Your task to perform on an android device: clear all cookies in the chrome app Image 0: 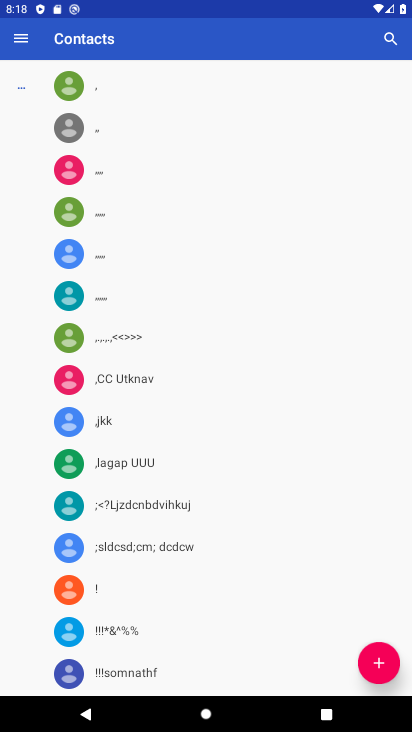
Step 0: press back button
Your task to perform on an android device: clear all cookies in the chrome app Image 1: 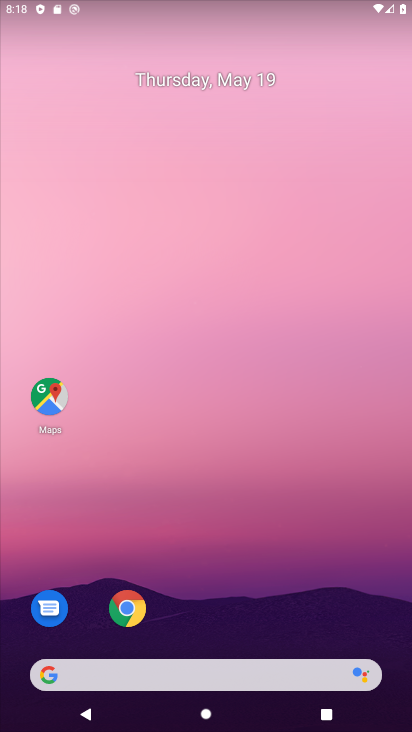
Step 1: drag from (272, 603) to (218, 183)
Your task to perform on an android device: clear all cookies in the chrome app Image 2: 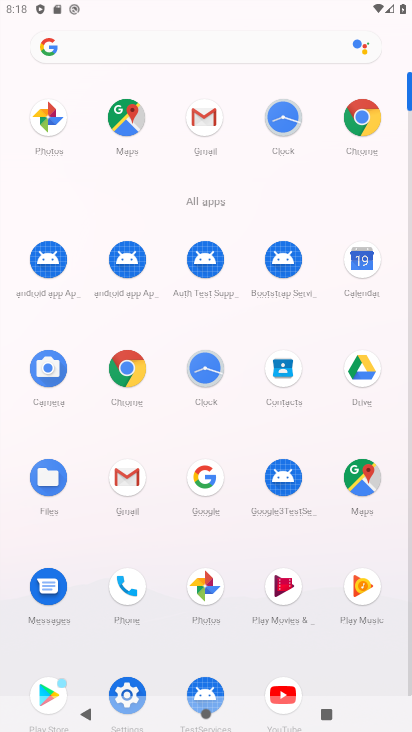
Step 2: click (359, 106)
Your task to perform on an android device: clear all cookies in the chrome app Image 3: 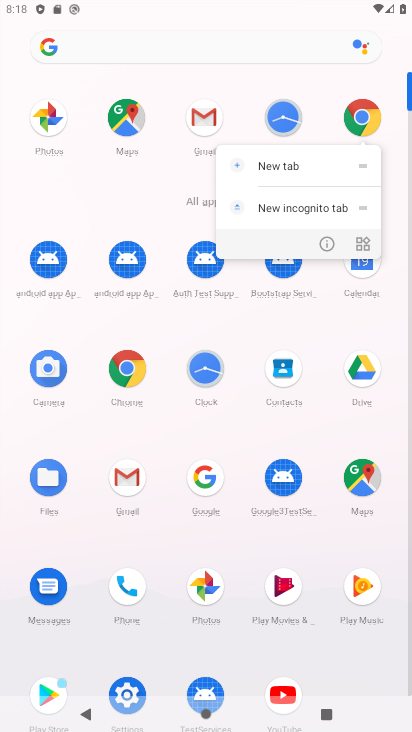
Step 3: click (345, 114)
Your task to perform on an android device: clear all cookies in the chrome app Image 4: 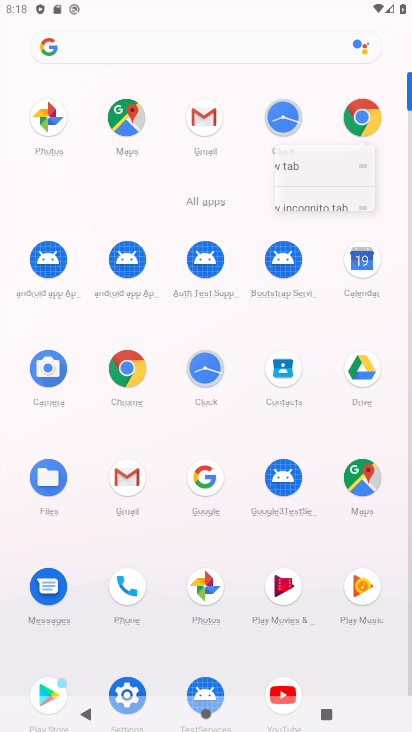
Step 4: click (345, 114)
Your task to perform on an android device: clear all cookies in the chrome app Image 5: 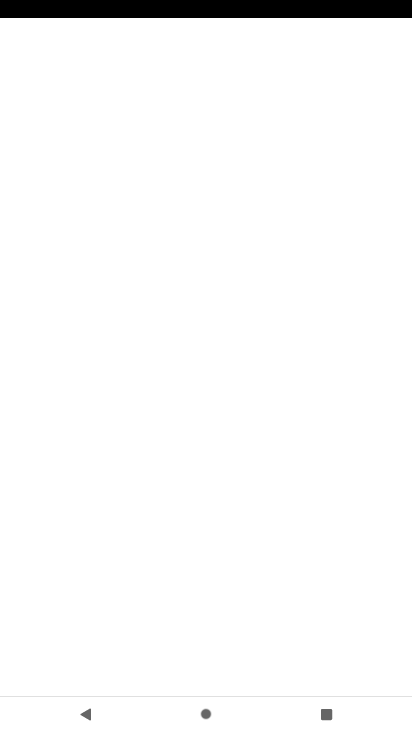
Step 5: click (345, 114)
Your task to perform on an android device: clear all cookies in the chrome app Image 6: 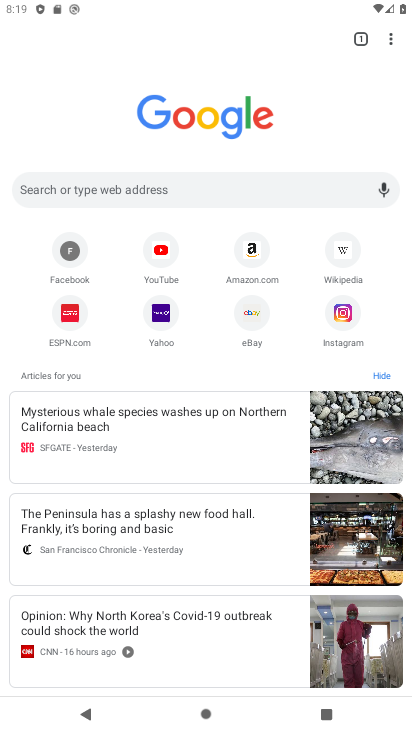
Step 6: click (385, 37)
Your task to perform on an android device: clear all cookies in the chrome app Image 7: 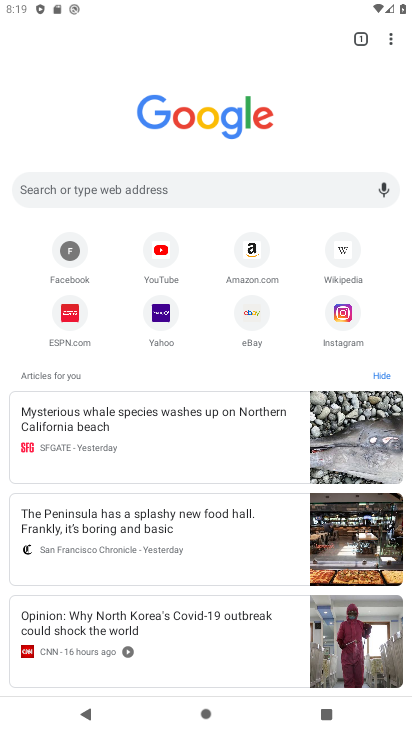
Step 7: click (385, 37)
Your task to perform on an android device: clear all cookies in the chrome app Image 8: 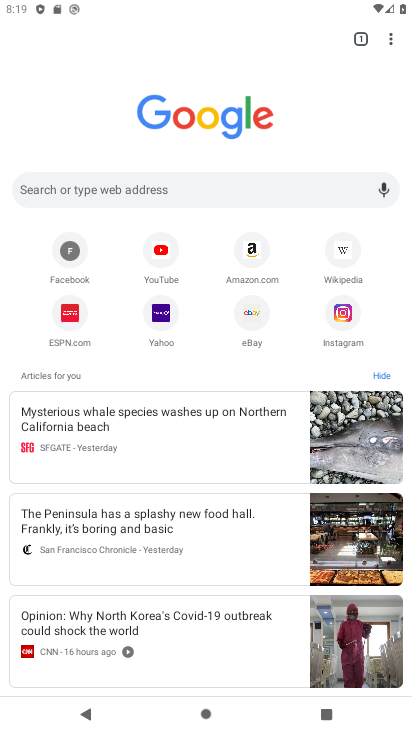
Step 8: click (392, 44)
Your task to perform on an android device: clear all cookies in the chrome app Image 9: 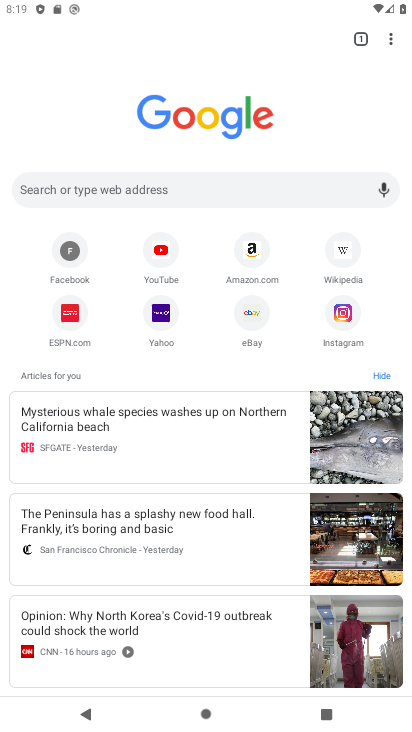
Step 9: drag from (386, 38) to (243, 323)
Your task to perform on an android device: clear all cookies in the chrome app Image 10: 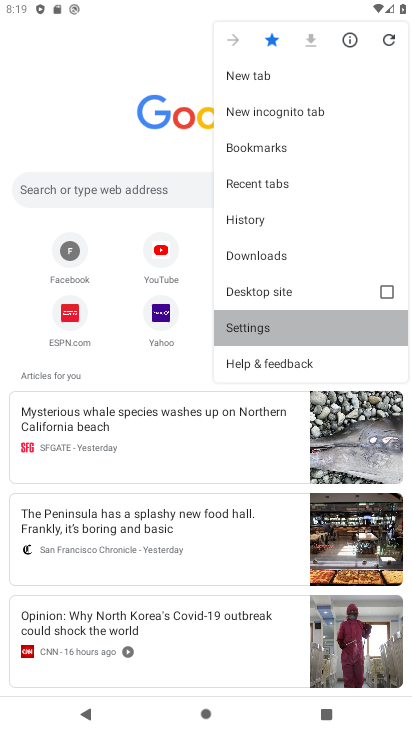
Step 10: click (243, 323)
Your task to perform on an android device: clear all cookies in the chrome app Image 11: 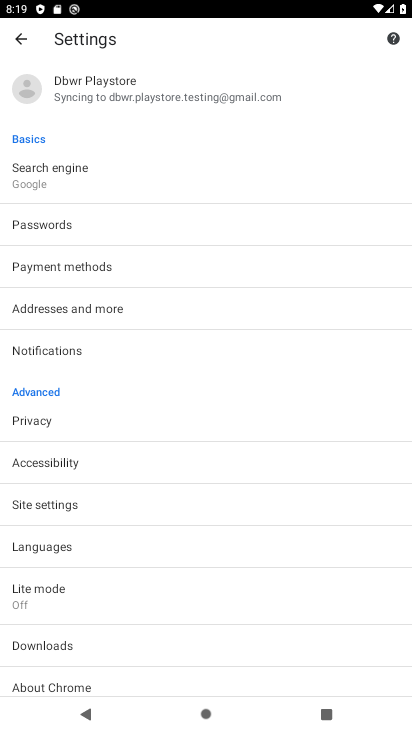
Step 11: click (37, 505)
Your task to perform on an android device: clear all cookies in the chrome app Image 12: 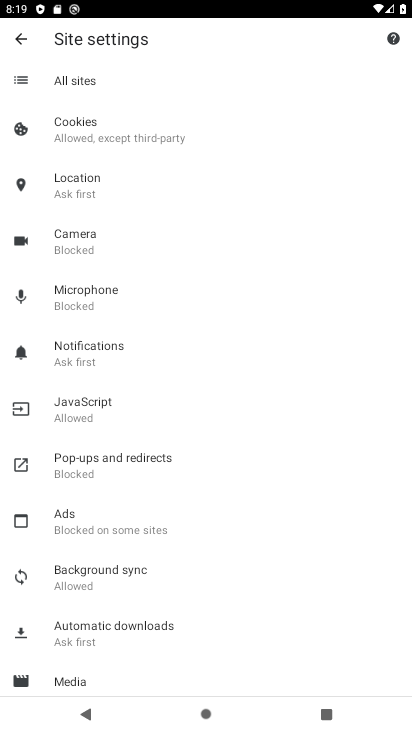
Step 12: click (70, 132)
Your task to perform on an android device: clear all cookies in the chrome app Image 13: 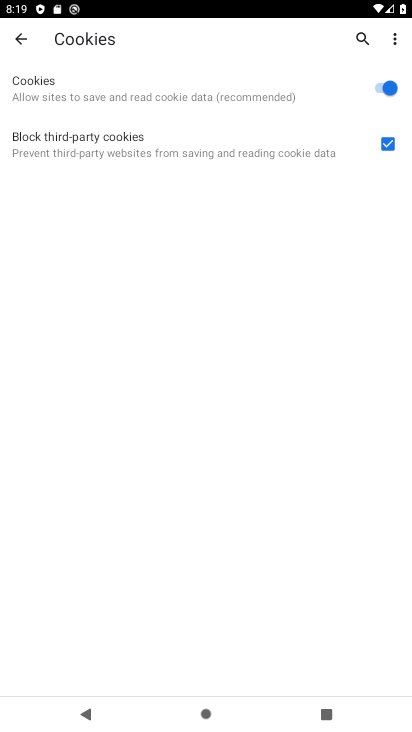
Step 13: click (391, 89)
Your task to perform on an android device: clear all cookies in the chrome app Image 14: 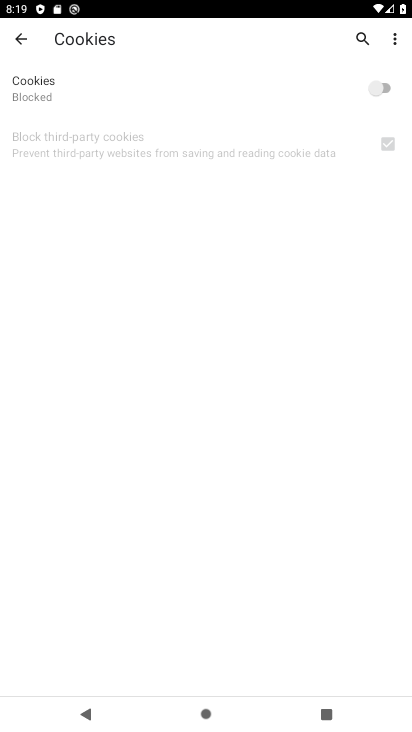
Step 14: task complete